Your task to perform on an android device: check out phone information Image 0: 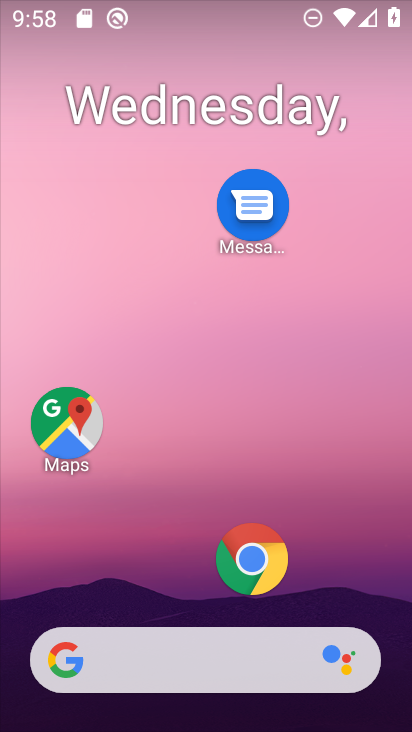
Step 0: drag from (177, 590) to (388, 226)
Your task to perform on an android device: check out phone information Image 1: 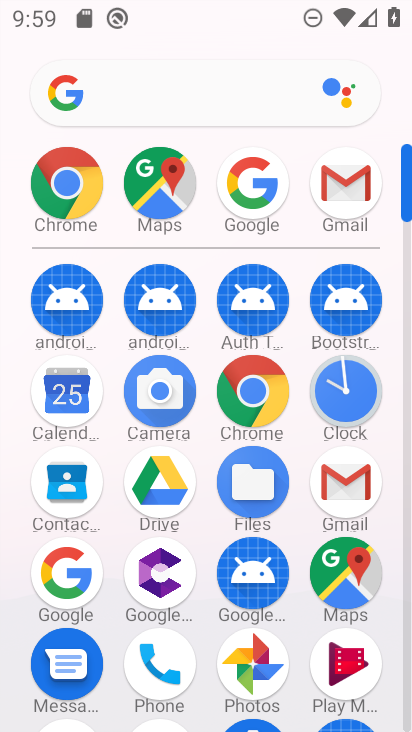
Step 1: drag from (228, 565) to (313, 266)
Your task to perform on an android device: check out phone information Image 2: 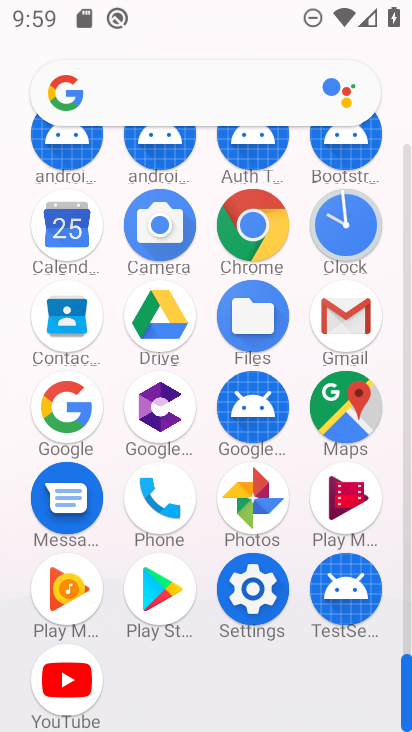
Step 2: click (266, 584)
Your task to perform on an android device: check out phone information Image 3: 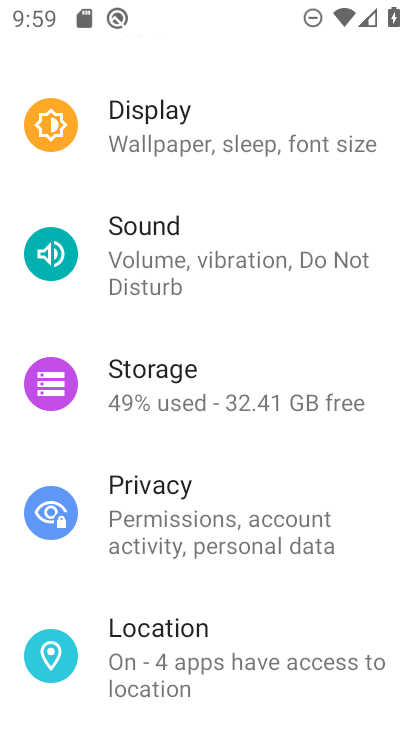
Step 3: drag from (226, 543) to (314, 250)
Your task to perform on an android device: check out phone information Image 4: 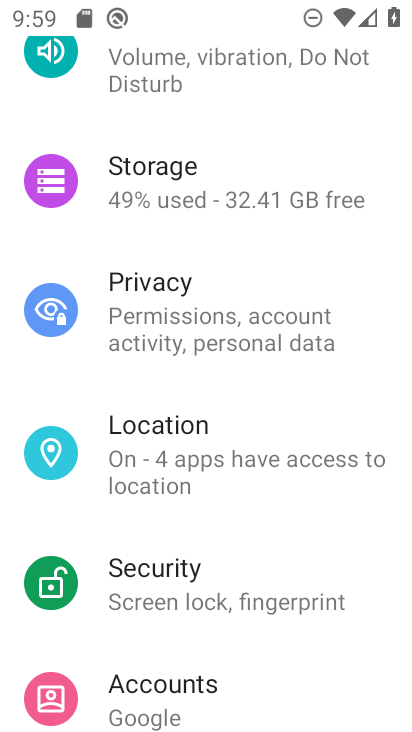
Step 4: drag from (211, 534) to (300, 206)
Your task to perform on an android device: check out phone information Image 5: 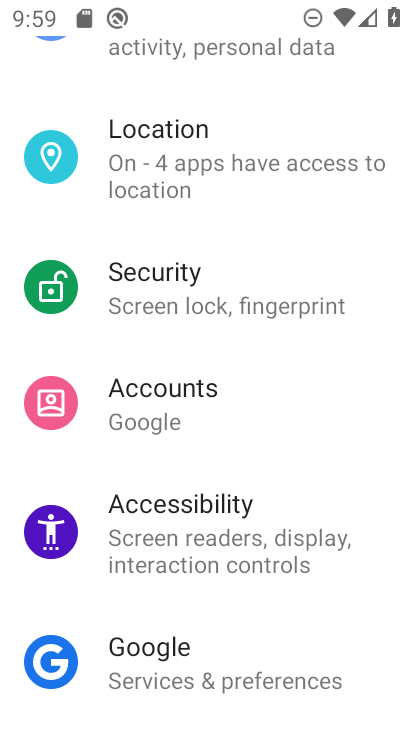
Step 5: drag from (230, 473) to (336, 211)
Your task to perform on an android device: check out phone information Image 6: 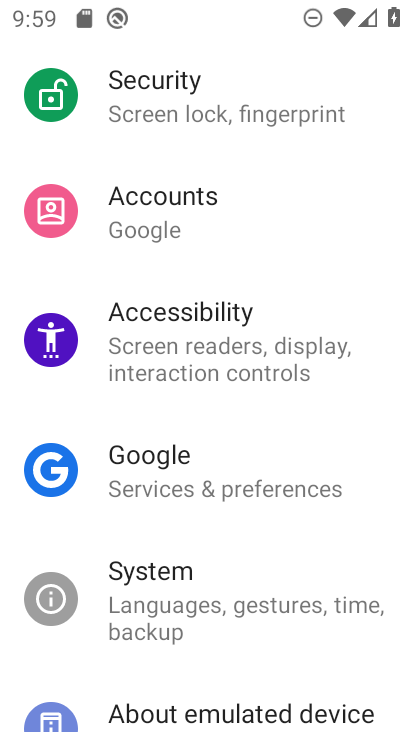
Step 6: drag from (221, 623) to (219, 262)
Your task to perform on an android device: check out phone information Image 7: 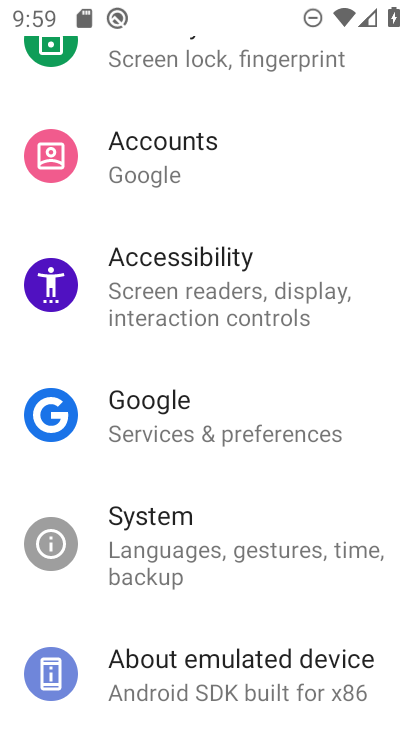
Step 7: click (184, 678)
Your task to perform on an android device: check out phone information Image 8: 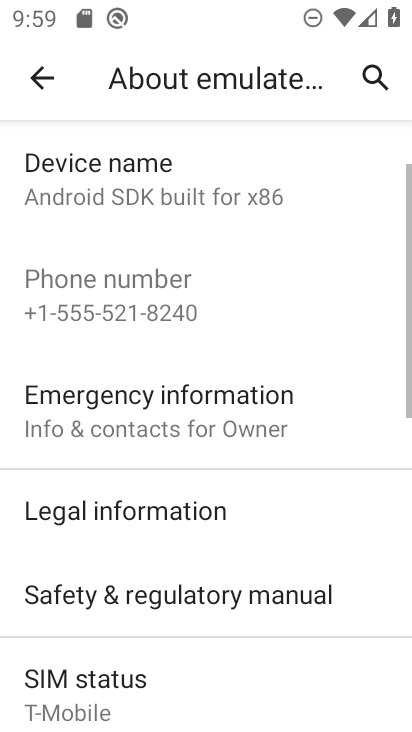
Step 8: task complete